Your task to perform on an android device: Play the last video I watched on Youtube Image 0: 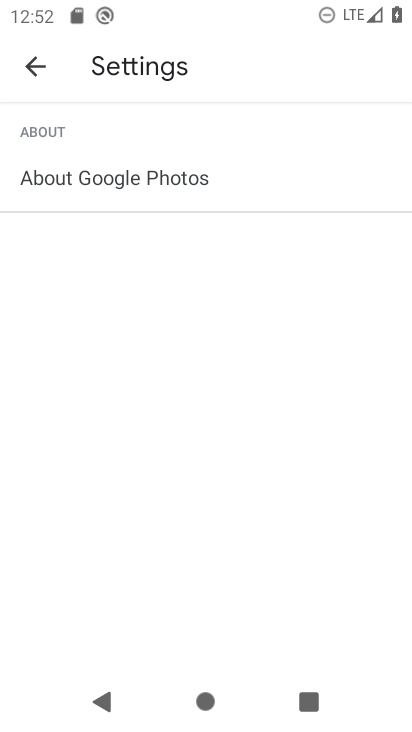
Step 0: press home button
Your task to perform on an android device: Play the last video I watched on Youtube Image 1: 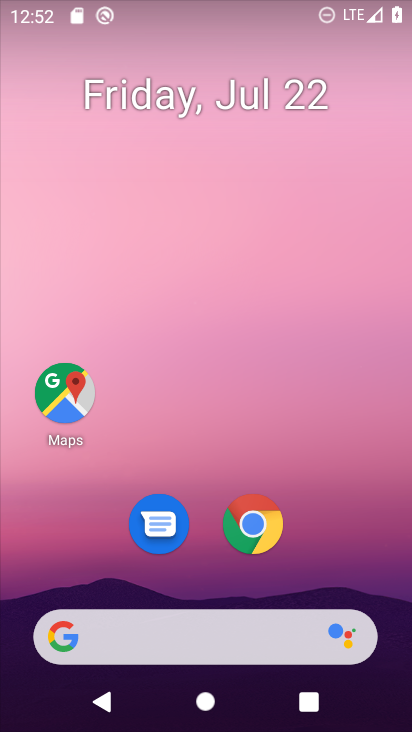
Step 1: drag from (323, 552) to (334, 100)
Your task to perform on an android device: Play the last video I watched on Youtube Image 2: 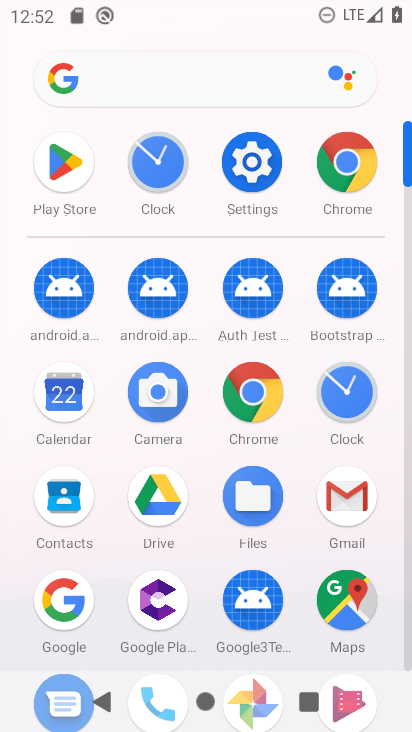
Step 2: drag from (204, 469) to (226, 128)
Your task to perform on an android device: Play the last video I watched on Youtube Image 3: 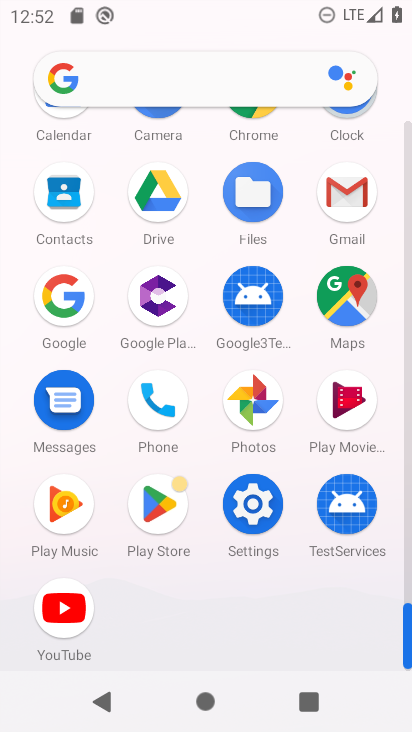
Step 3: click (67, 609)
Your task to perform on an android device: Play the last video I watched on Youtube Image 4: 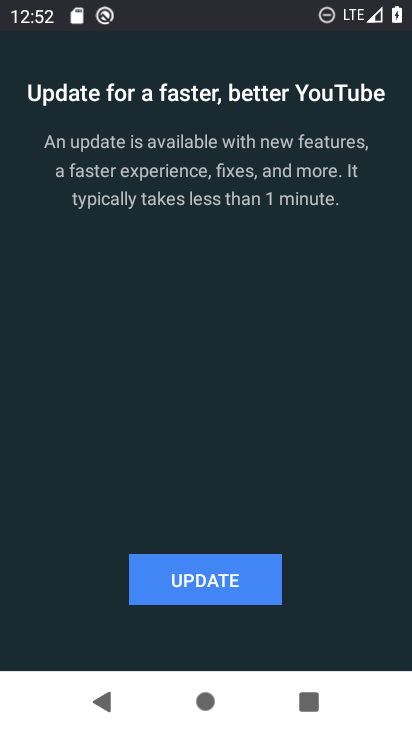
Step 4: click (187, 569)
Your task to perform on an android device: Play the last video I watched on Youtube Image 5: 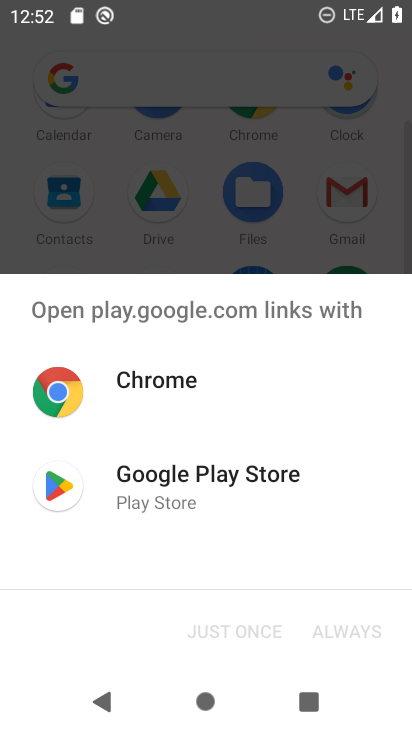
Step 5: click (134, 484)
Your task to perform on an android device: Play the last video I watched on Youtube Image 6: 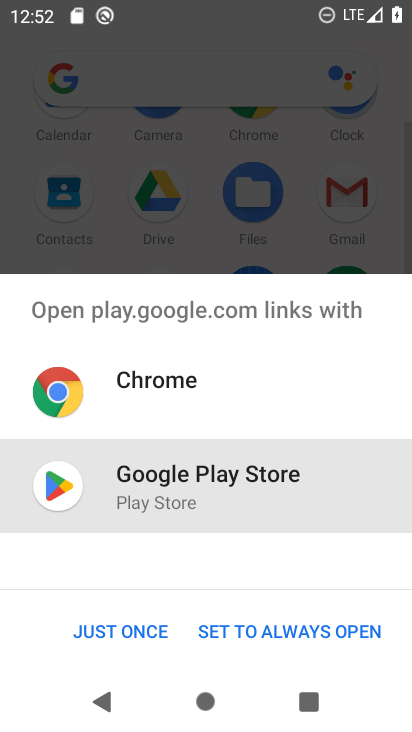
Step 6: click (147, 627)
Your task to perform on an android device: Play the last video I watched on Youtube Image 7: 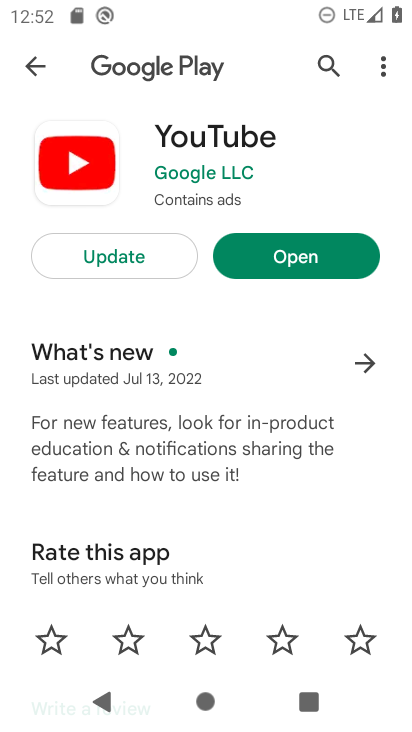
Step 7: click (179, 256)
Your task to perform on an android device: Play the last video I watched on Youtube Image 8: 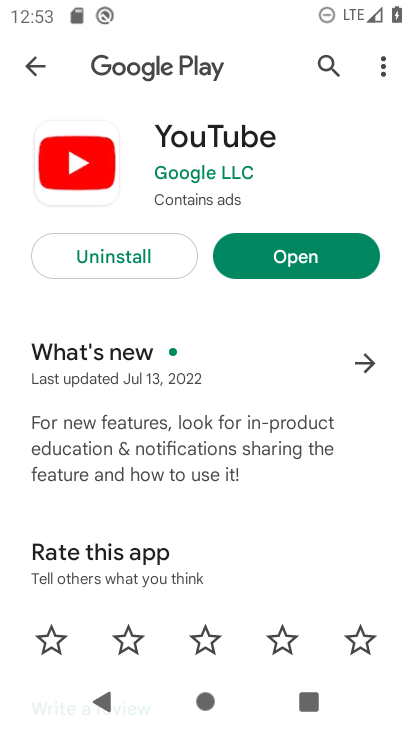
Step 8: click (316, 262)
Your task to perform on an android device: Play the last video I watched on Youtube Image 9: 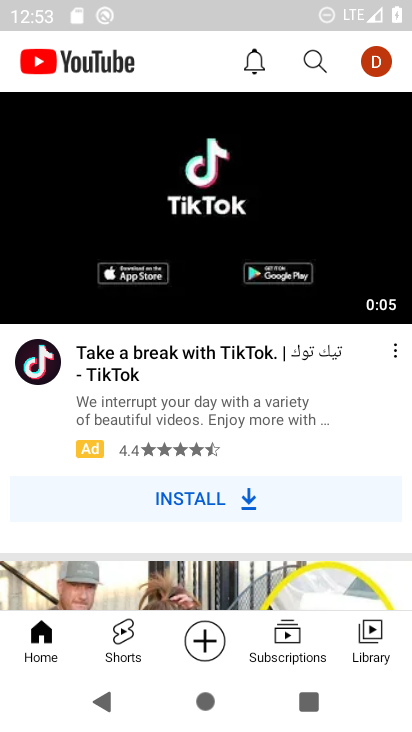
Step 9: click (374, 640)
Your task to perform on an android device: Play the last video I watched on Youtube Image 10: 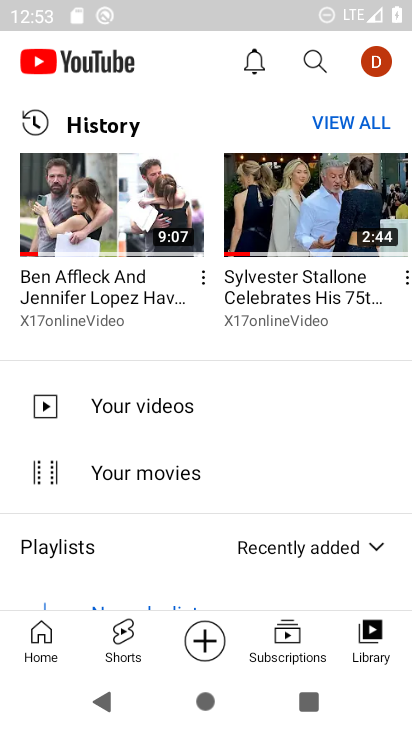
Step 10: click (104, 196)
Your task to perform on an android device: Play the last video I watched on Youtube Image 11: 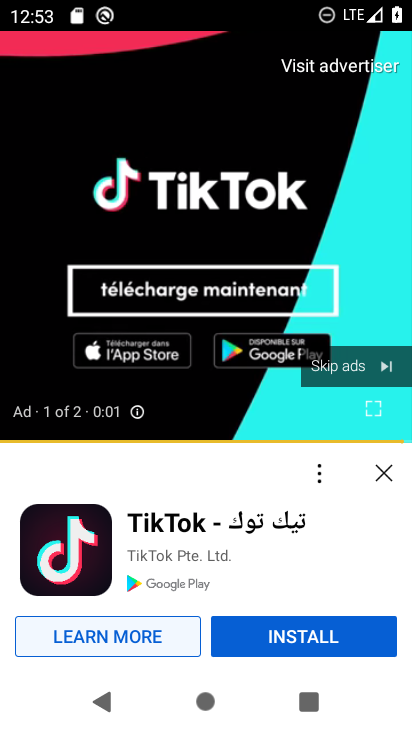
Step 11: click (339, 368)
Your task to perform on an android device: Play the last video I watched on Youtube Image 12: 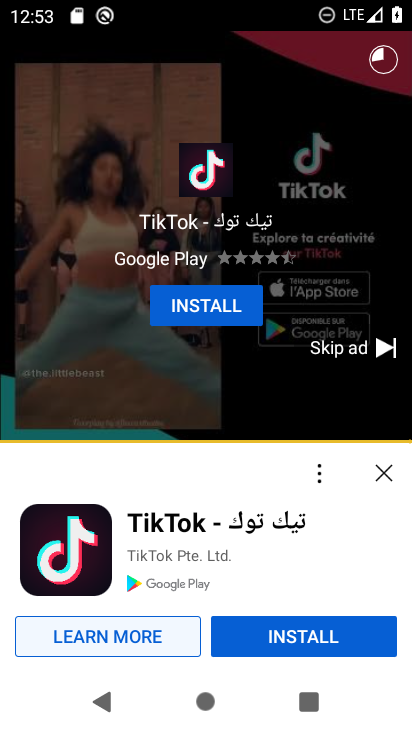
Step 12: click (352, 346)
Your task to perform on an android device: Play the last video I watched on Youtube Image 13: 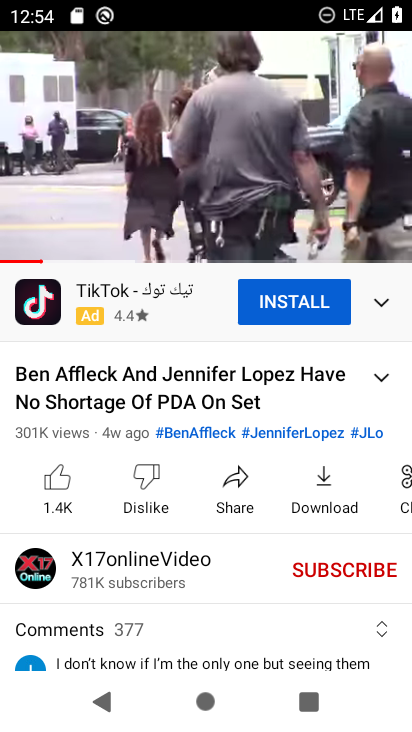
Step 13: task complete